Your task to perform on an android device: check the backup settings in the google photos Image 0: 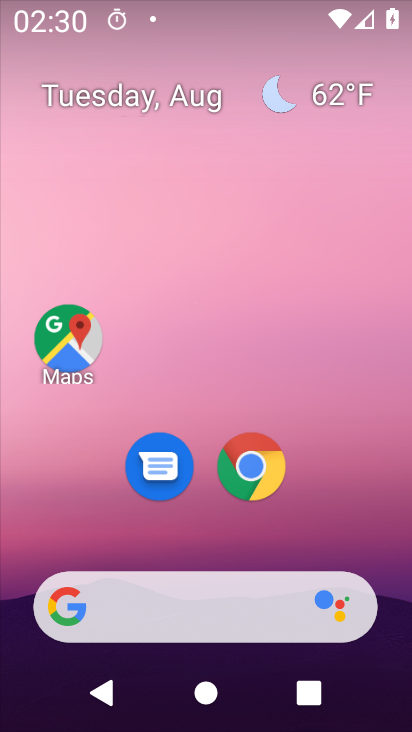
Step 0: press home button
Your task to perform on an android device: check the backup settings in the google photos Image 1: 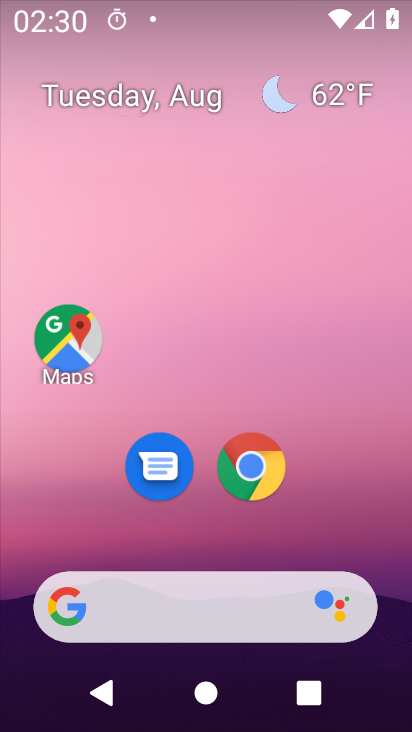
Step 1: drag from (369, 503) to (369, 110)
Your task to perform on an android device: check the backup settings in the google photos Image 2: 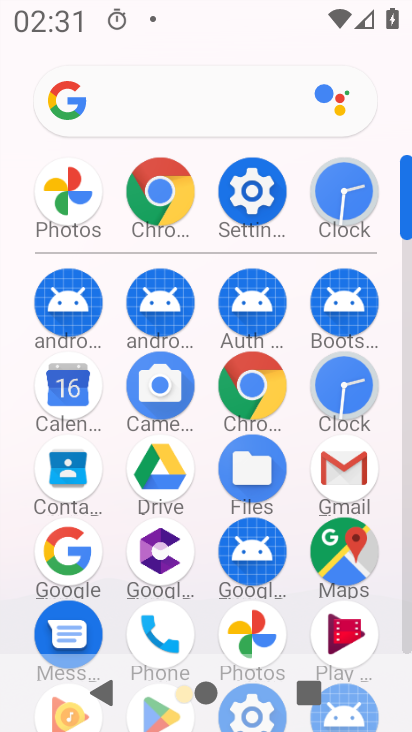
Step 2: click (258, 632)
Your task to perform on an android device: check the backup settings in the google photos Image 3: 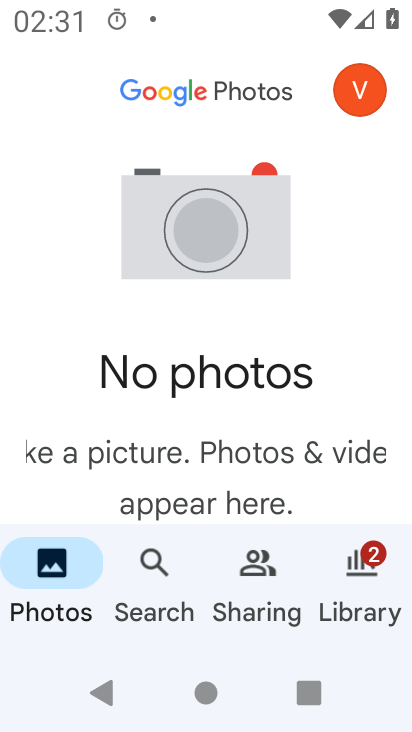
Step 3: click (362, 91)
Your task to perform on an android device: check the backup settings in the google photos Image 4: 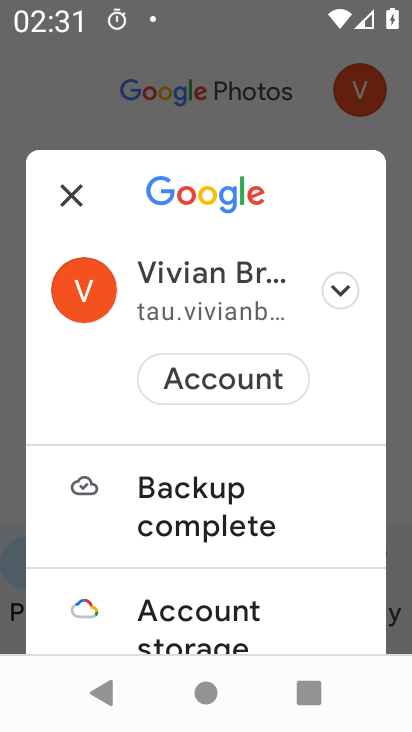
Step 4: drag from (321, 581) to (346, 241)
Your task to perform on an android device: check the backup settings in the google photos Image 5: 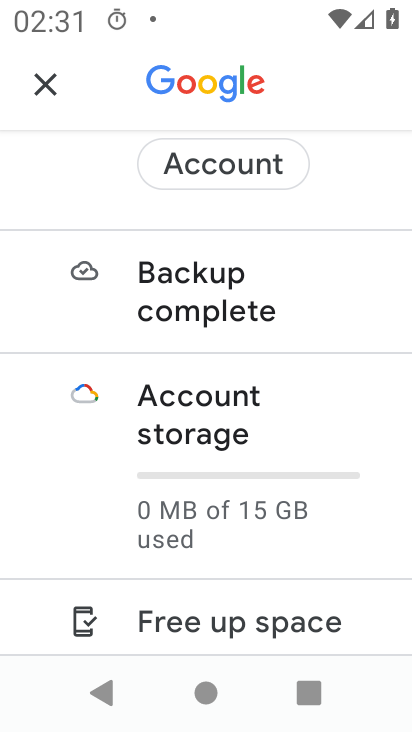
Step 5: drag from (290, 458) to (320, 251)
Your task to perform on an android device: check the backup settings in the google photos Image 6: 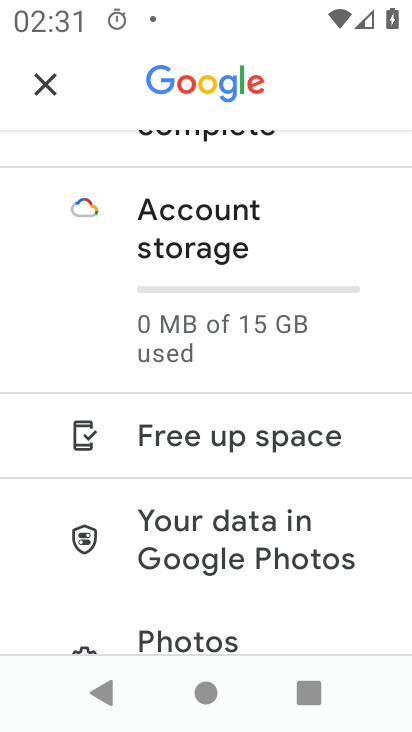
Step 6: drag from (279, 610) to (300, 335)
Your task to perform on an android device: check the backup settings in the google photos Image 7: 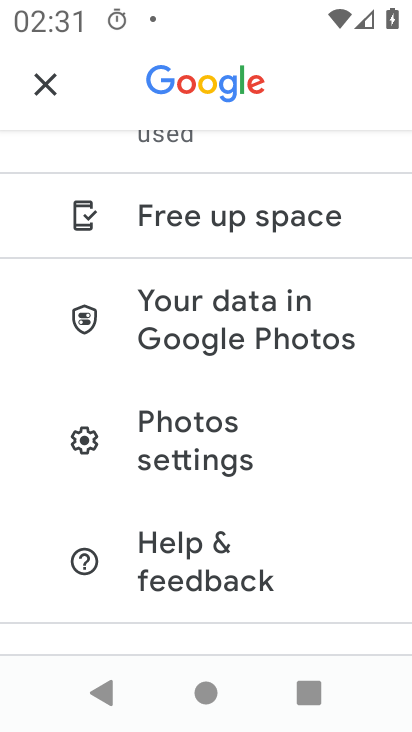
Step 7: click (240, 452)
Your task to perform on an android device: check the backup settings in the google photos Image 8: 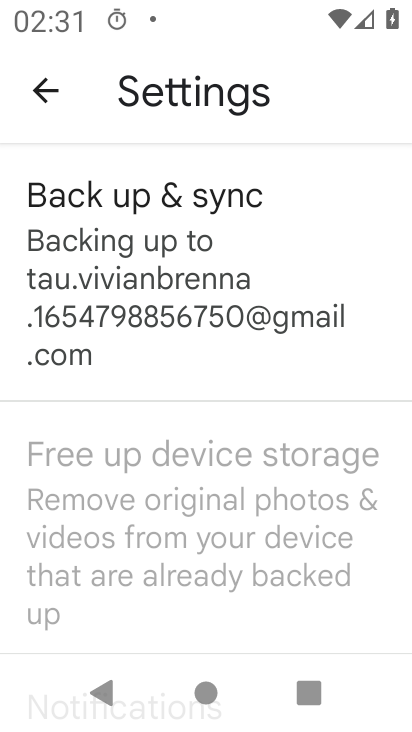
Step 8: click (200, 264)
Your task to perform on an android device: check the backup settings in the google photos Image 9: 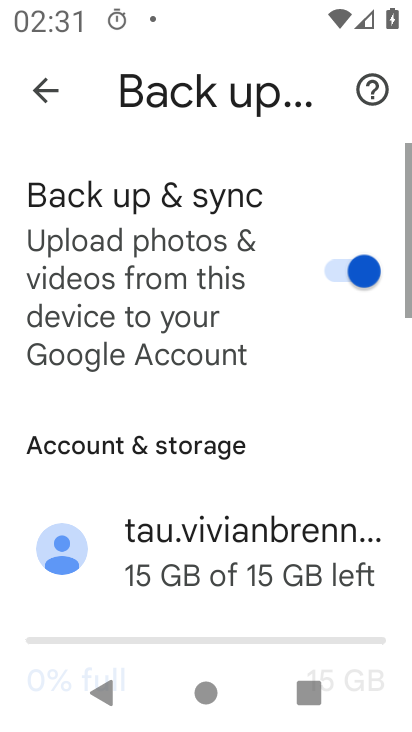
Step 9: task complete